Your task to perform on an android device: What's on my calendar today? Image 0: 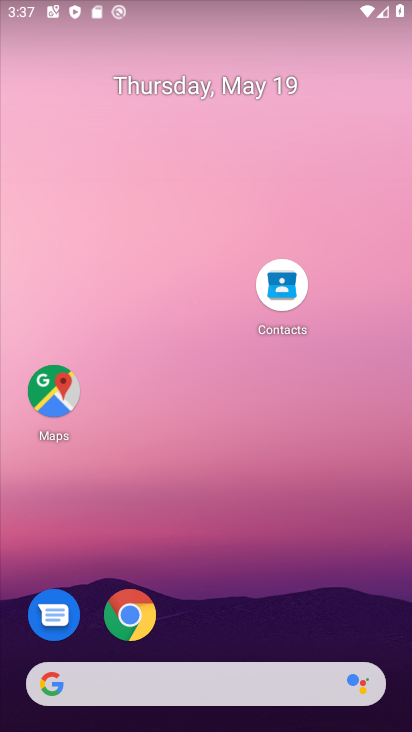
Step 0: drag from (214, 521) to (349, 29)
Your task to perform on an android device: What's on my calendar today? Image 1: 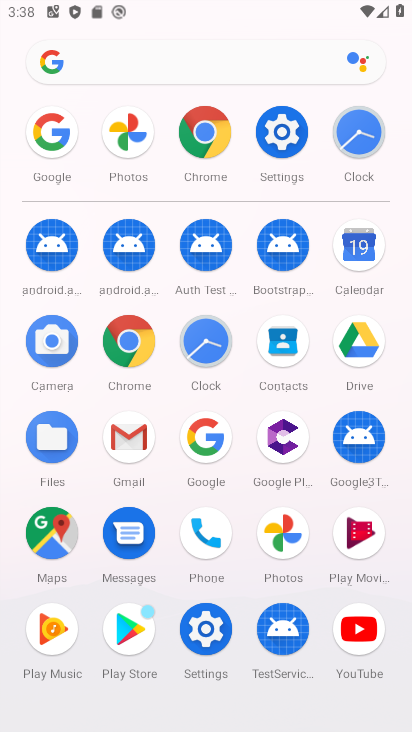
Step 1: click (368, 270)
Your task to perform on an android device: What's on my calendar today? Image 2: 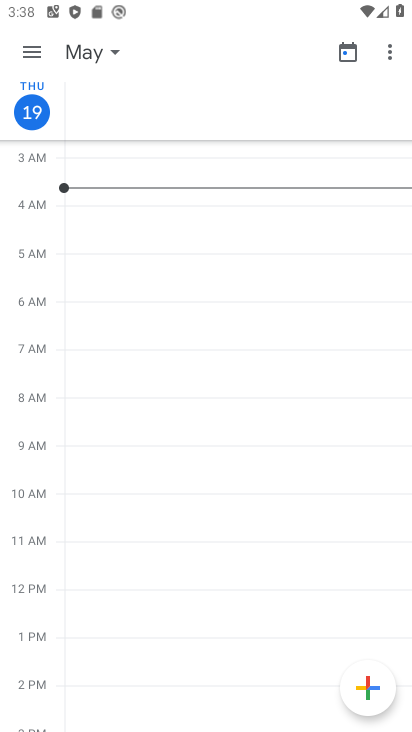
Step 2: click (112, 56)
Your task to perform on an android device: What's on my calendar today? Image 3: 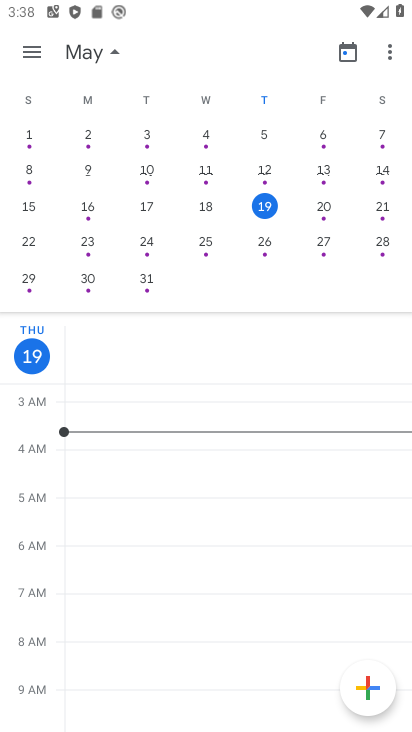
Step 3: click (269, 211)
Your task to perform on an android device: What's on my calendar today? Image 4: 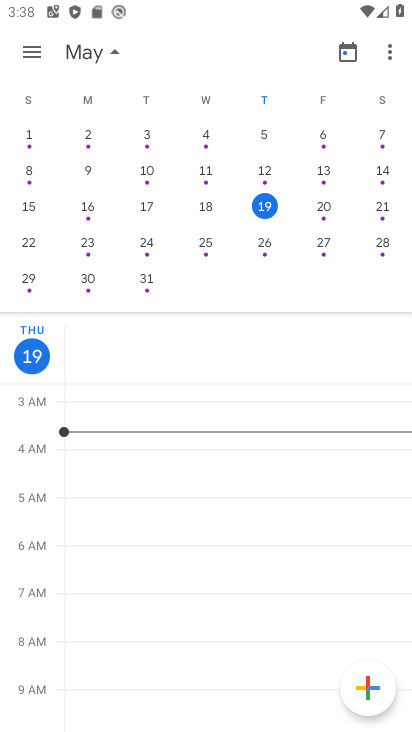
Step 4: task complete